Your task to perform on an android device: Open Chrome and go to the settings page Image 0: 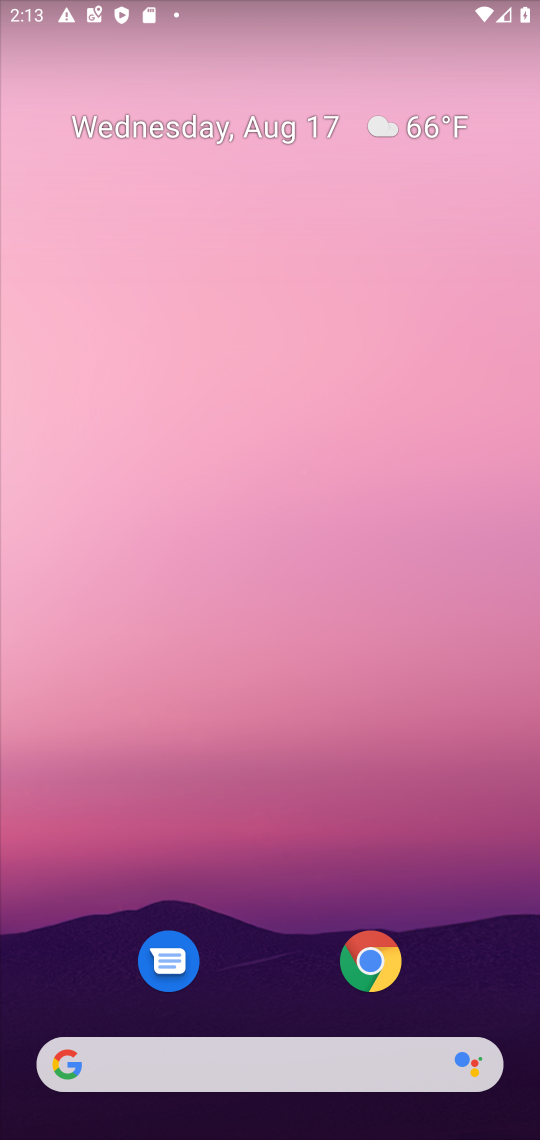
Step 0: drag from (227, 1074) to (247, 708)
Your task to perform on an android device: Open Chrome and go to the settings page Image 1: 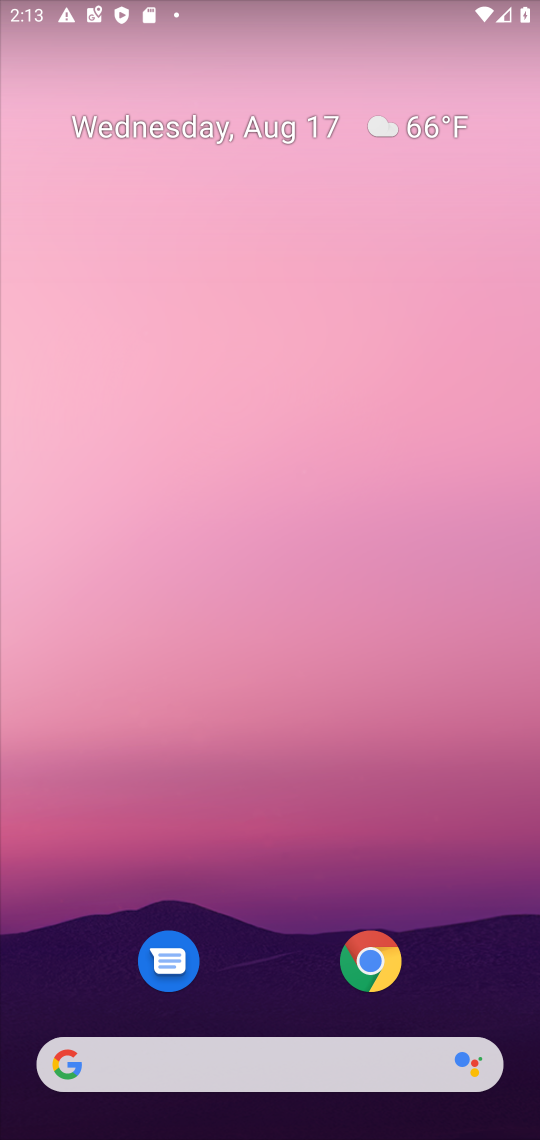
Step 1: click (379, 992)
Your task to perform on an android device: Open Chrome and go to the settings page Image 2: 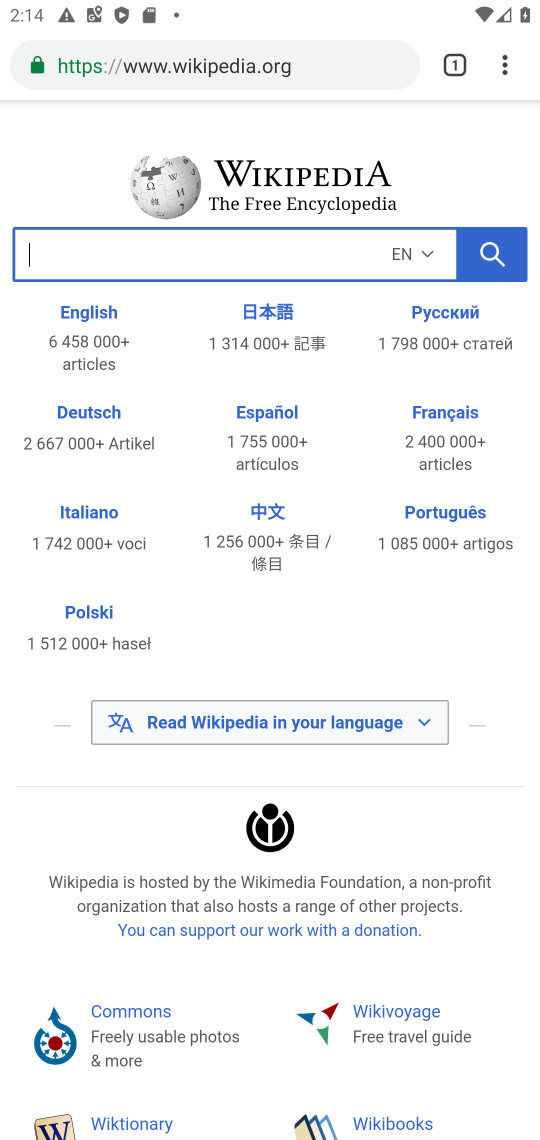
Step 2: click (496, 65)
Your task to perform on an android device: Open Chrome and go to the settings page Image 3: 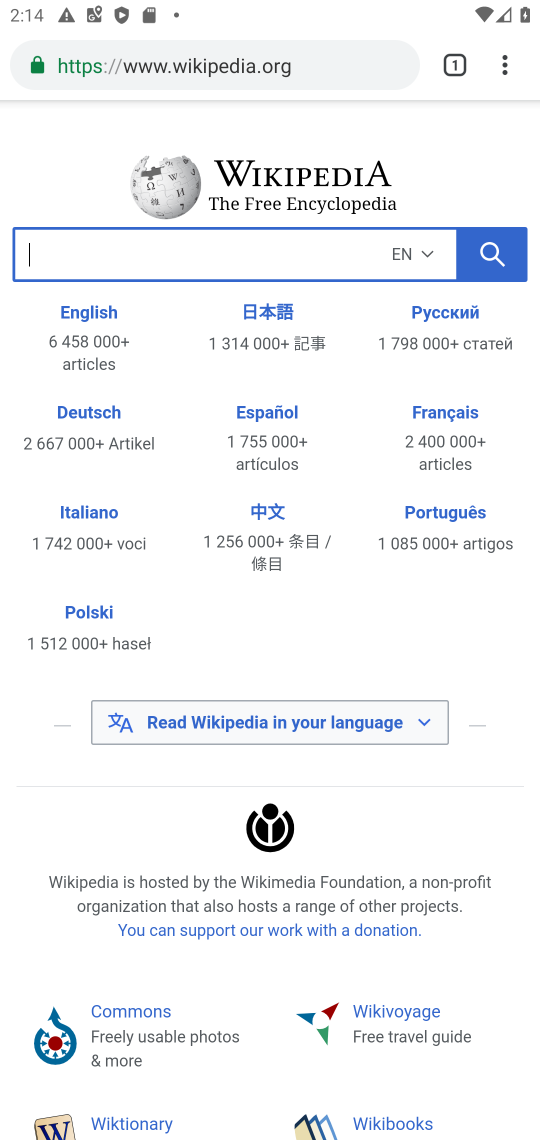
Step 3: click (509, 63)
Your task to perform on an android device: Open Chrome and go to the settings page Image 4: 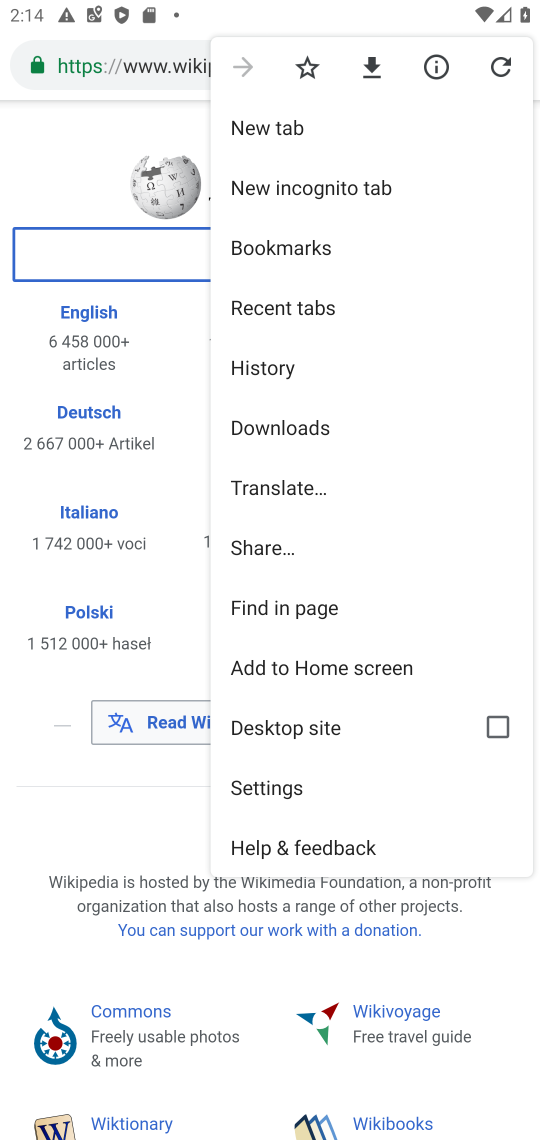
Step 4: click (277, 775)
Your task to perform on an android device: Open Chrome and go to the settings page Image 5: 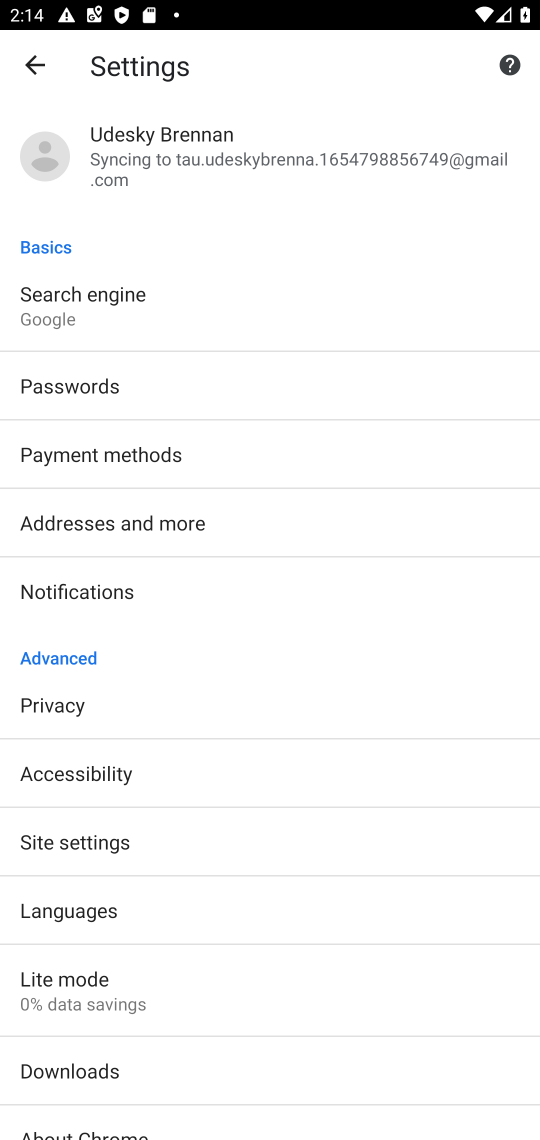
Step 5: task complete